Your task to perform on an android device: Open ESPN.com Image 0: 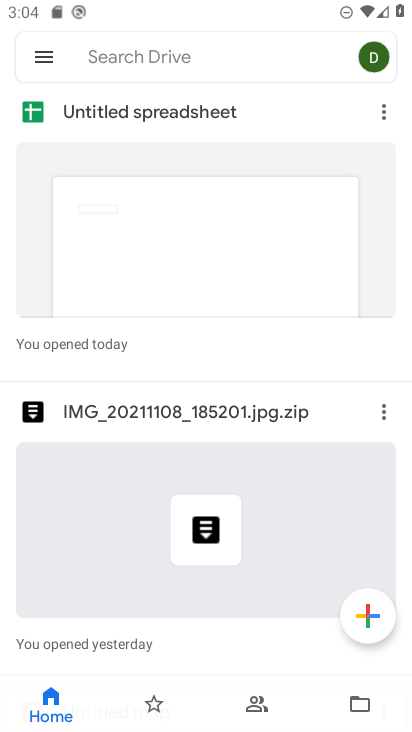
Step 0: press home button
Your task to perform on an android device: Open ESPN.com Image 1: 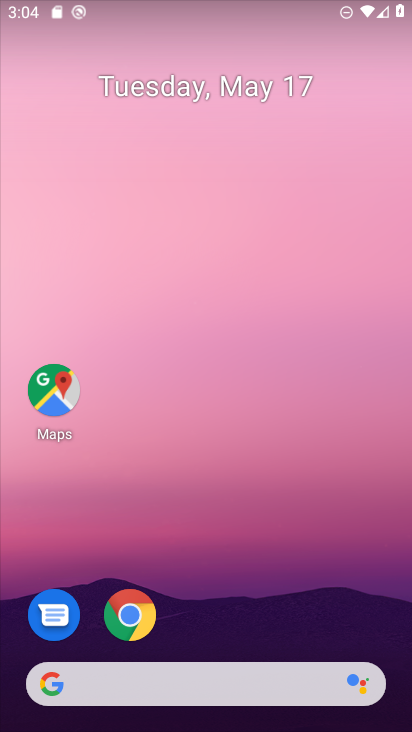
Step 1: click (131, 624)
Your task to perform on an android device: Open ESPN.com Image 2: 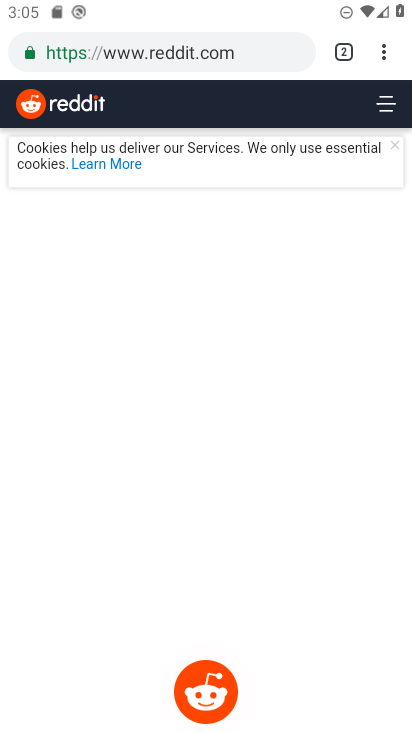
Step 2: click (382, 56)
Your task to perform on an android device: Open ESPN.com Image 3: 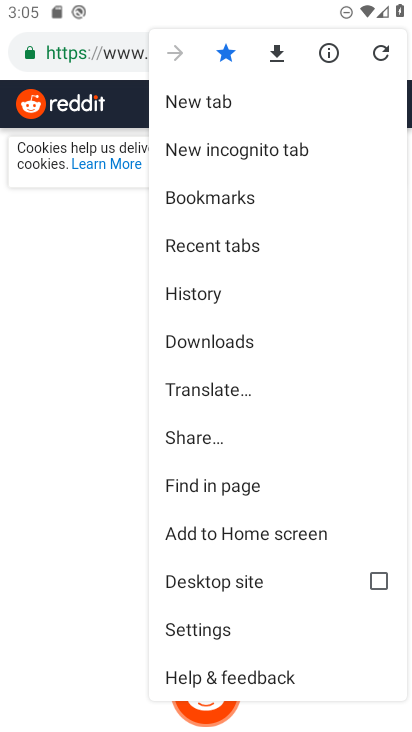
Step 3: click (214, 99)
Your task to perform on an android device: Open ESPN.com Image 4: 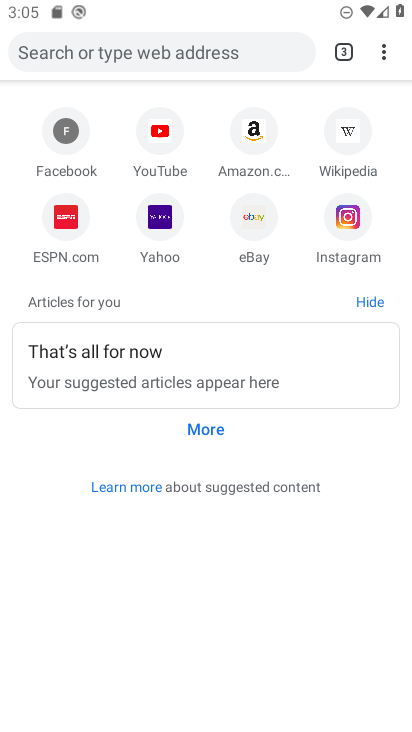
Step 4: click (201, 56)
Your task to perform on an android device: Open ESPN.com Image 5: 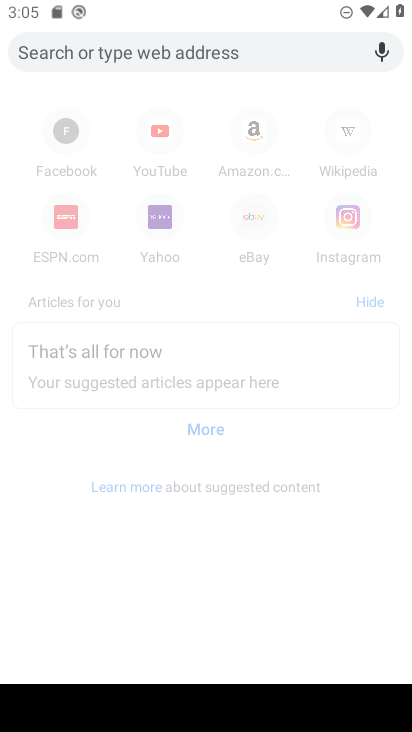
Step 5: click (201, 56)
Your task to perform on an android device: Open ESPN.com Image 6: 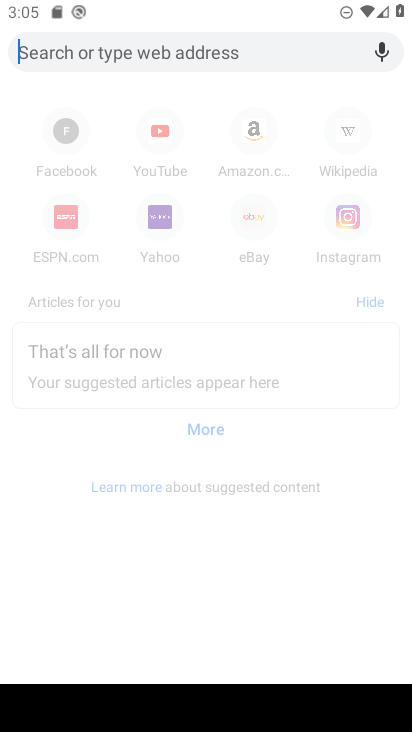
Step 6: type "ESPN.com"
Your task to perform on an android device: Open ESPN.com Image 7: 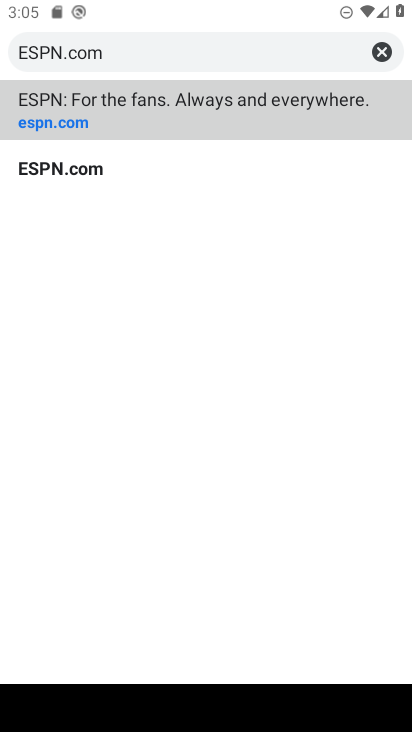
Step 7: click (200, 101)
Your task to perform on an android device: Open ESPN.com Image 8: 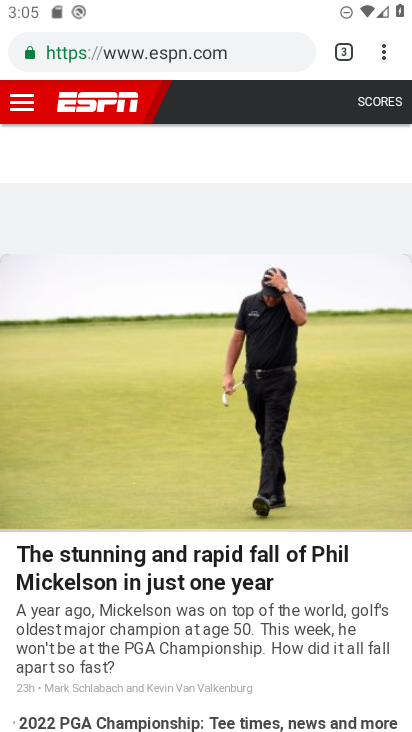
Step 8: task complete